Your task to perform on an android device: Open Chrome and go to settings Image 0: 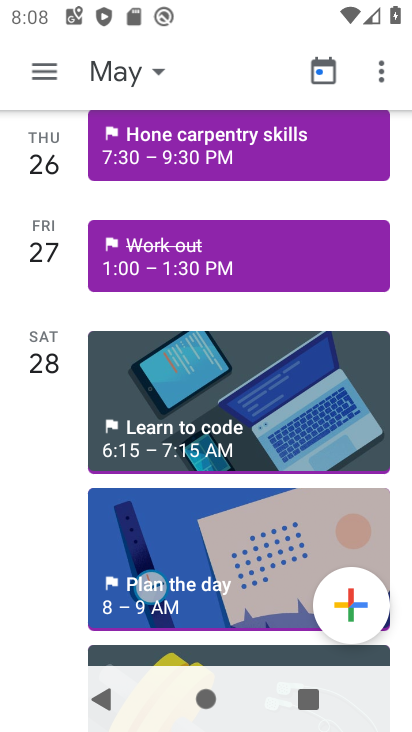
Step 0: press home button
Your task to perform on an android device: Open Chrome and go to settings Image 1: 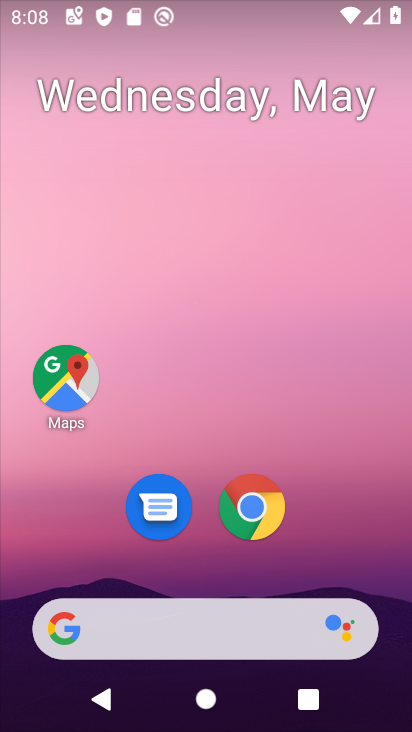
Step 1: click (253, 495)
Your task to perform on an android device: Open Chrome and go to settings Image 2: 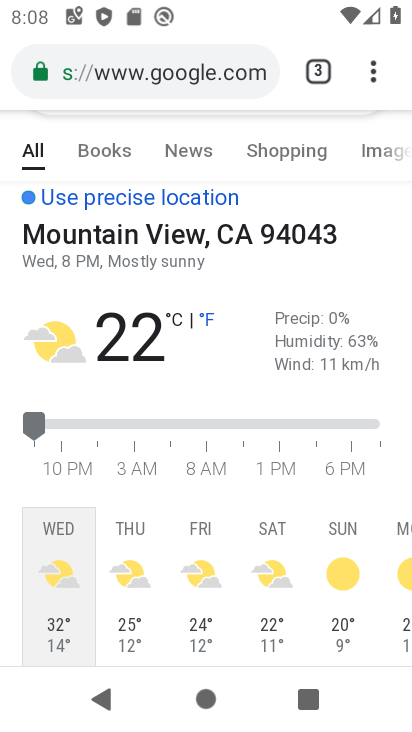
Step 2: click (363, 59)
Your task to perform on an android device: Open Chrome and go to settings Image 3: 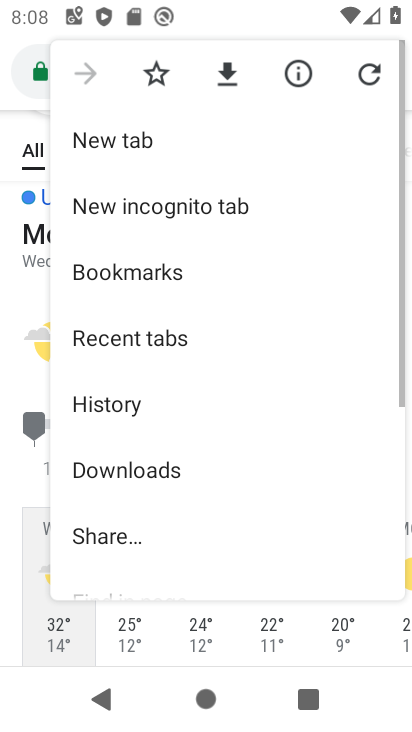
Step 3: drag from (172, 525) to (195, 206)
Your task to perform on an android device: Open Chrome and go to settings Image 4: 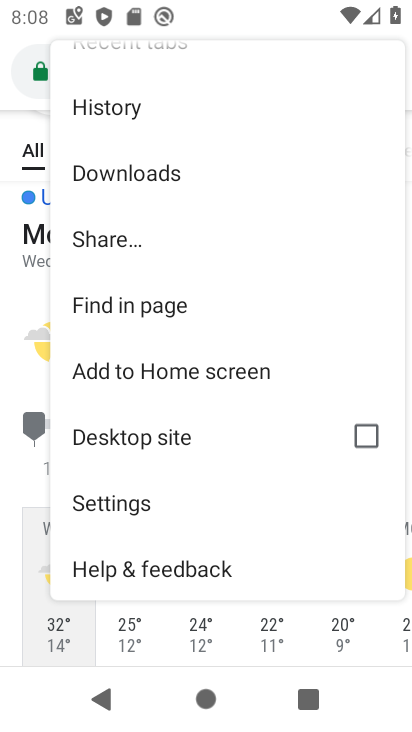
Step 4: click (146, 491)
Your task to perform on an android device: Open Chrome and go to settings Image 5: 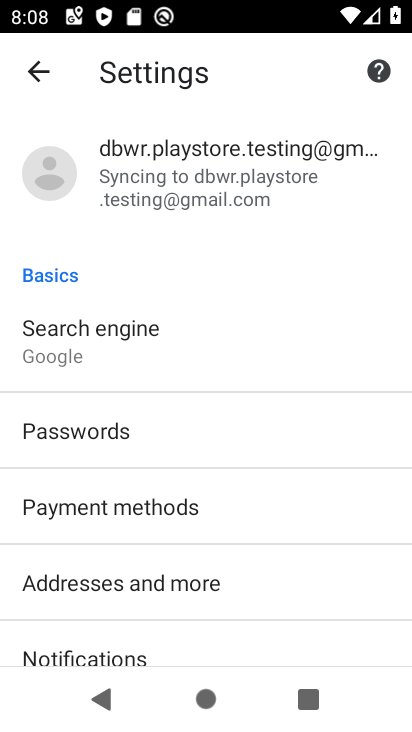
Step 5: task complete